Your task to perform on an android device: Go to Reddit.com Image 0: 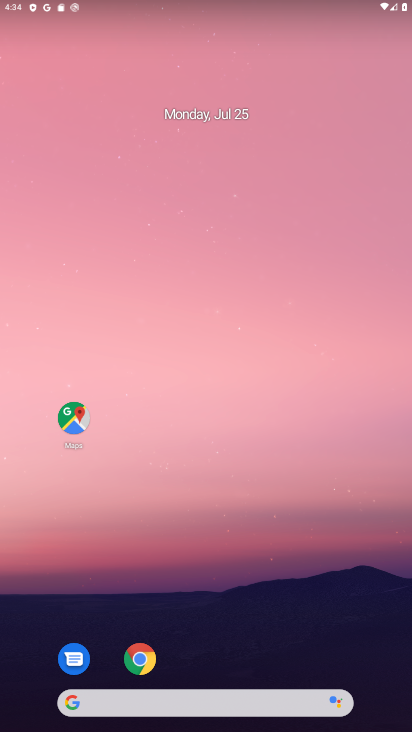
Step 0: click (143, 669)
Your task to perform on an android device: Go to Reddit.com Image 1: 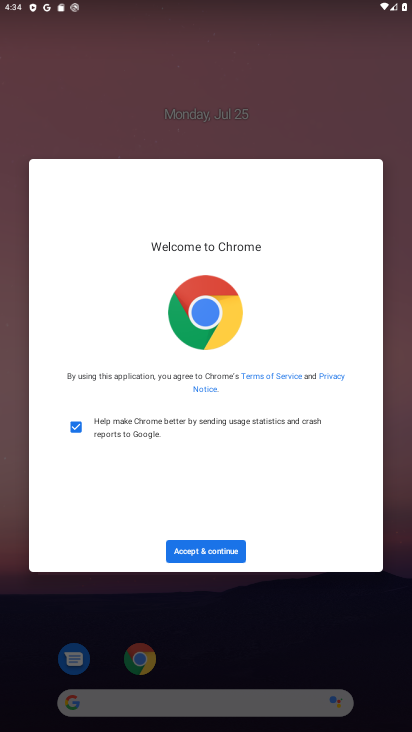
Step 1: click (212, 544)
Your task to perform on an android device: Go to Reddit.com Image 2: 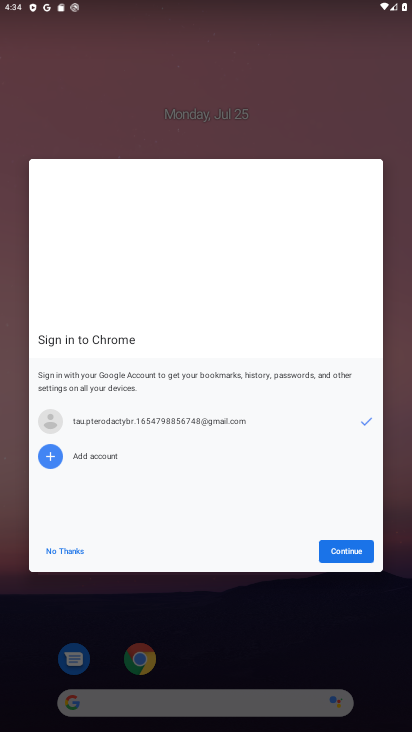
Step 2: click (348, 552)
Your task to perform on an android device: Go to Reddit.com Image 3: 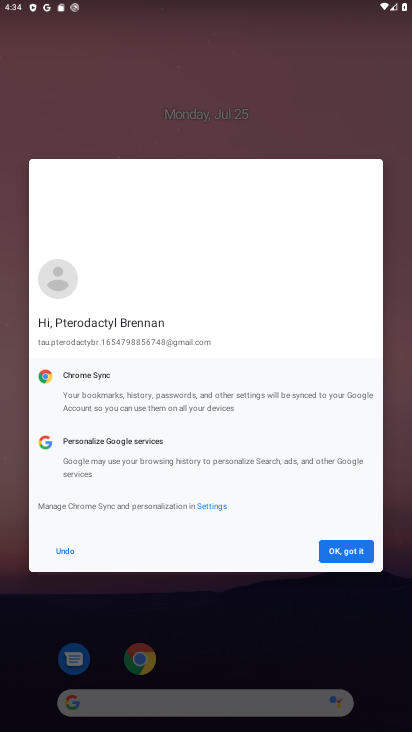
Step 3: click (348, 552)
Your task to perform on an android device: Go to Reddit.com Image 4: 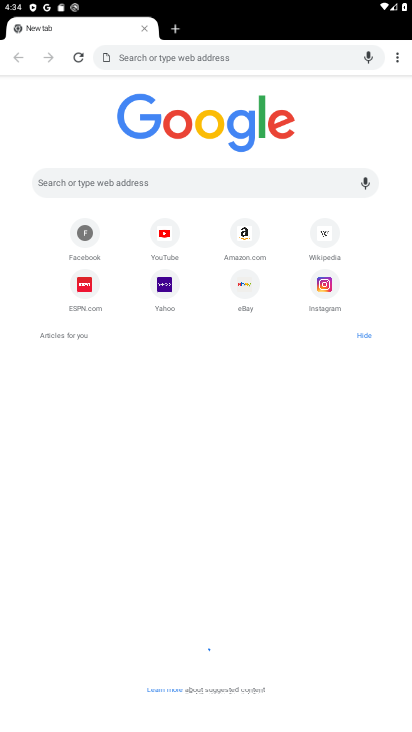
Step 4: click (145, 181)
Your task to perform on an android device: Go to Reddit.com Image 5: 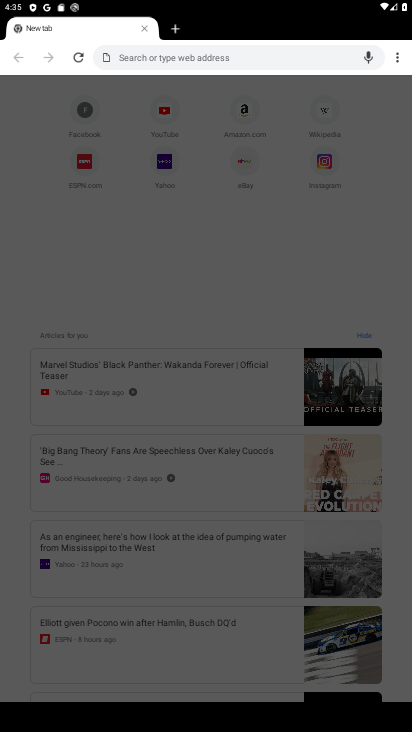
Step 5: type "www.reddit.com"
Your task to perform on an android device: Go to Reddit.com Image 6: 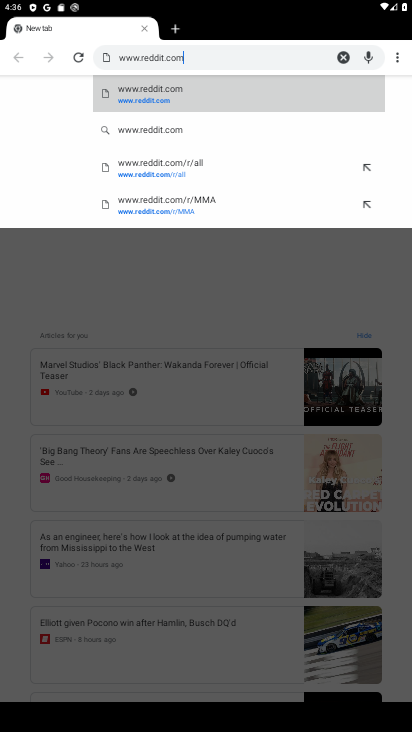
Step 6: click (151, 95)
Your task to perform on an android device: Go to Reddit.com Image 7: 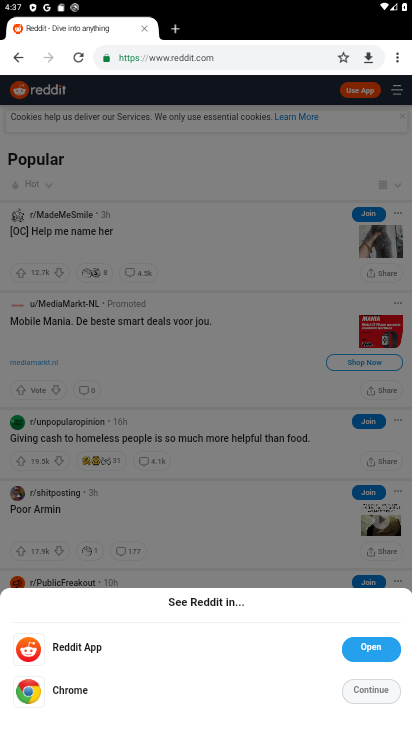
Step 7: task complete